Your task to perform on an android device: toggle javascript in the chrome app Image 0: 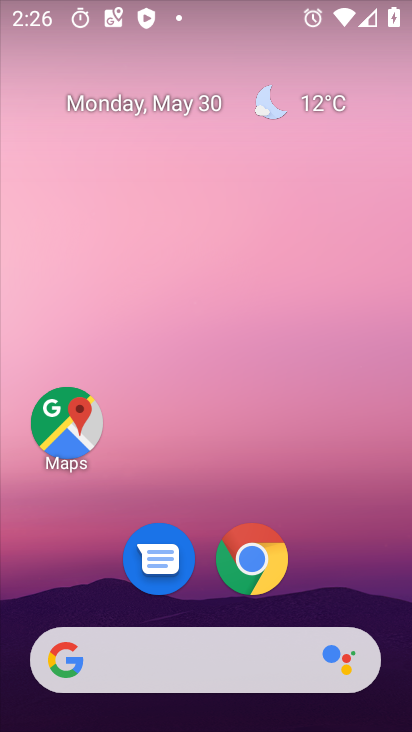
Step 0: click (264, 549)
Your task to perform on an android device: toggle javascript in the chrome app Image 1: 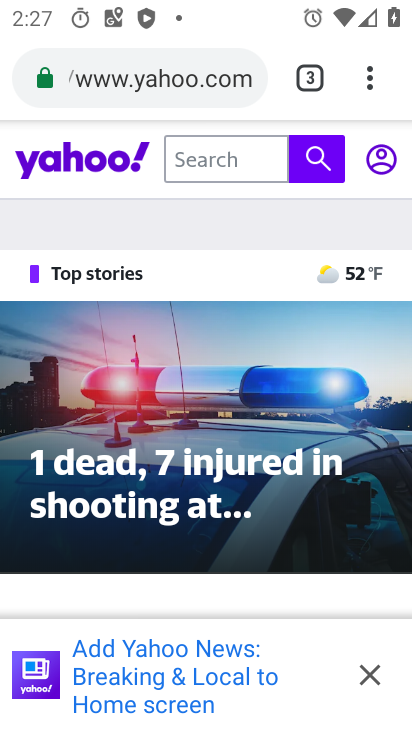
Step 1: drag from (369, 77) to (95, 617)
Your task to perform on an android device: toggle javascript in the chrome app Image 2: 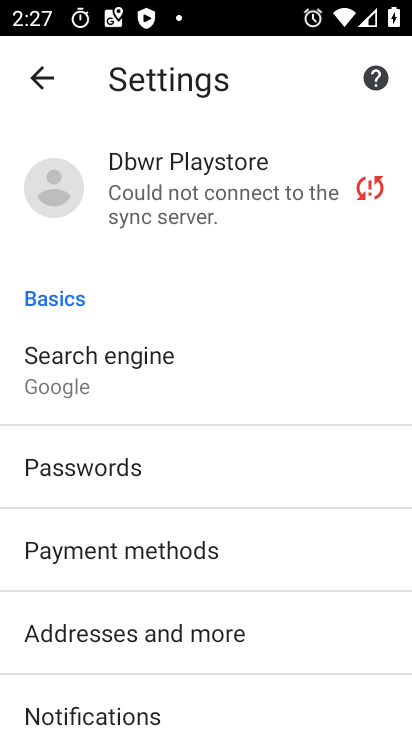
Step 2: drag from (129, 703) to (252, 165)
Your task to perform on an android device: toggle javascript in the chrome app Image 3: 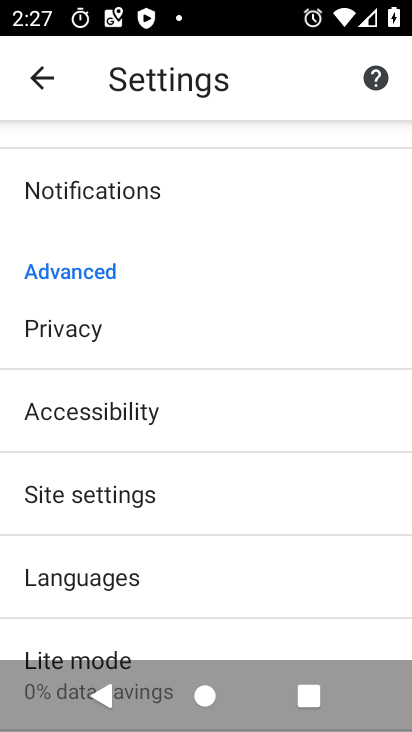
Step 3: click (79, 515)
Your task to perform on an android device: toggle javascript in the chrome app Image 4: 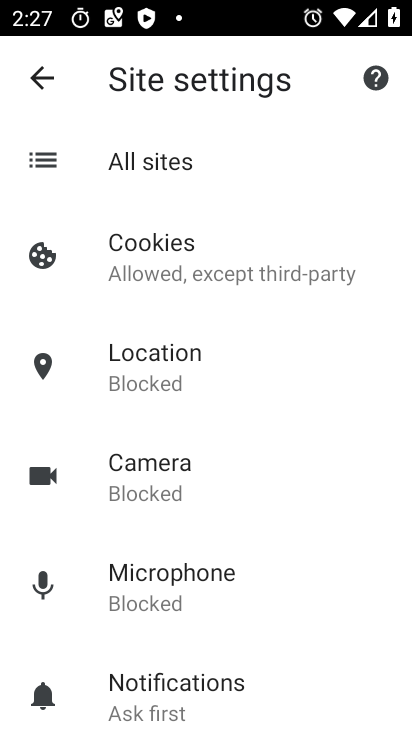
Step 4: drag from (155, 657) to (282, 206)
Your task to perform on an android device: toggle javascript in the chrome app Image 5: 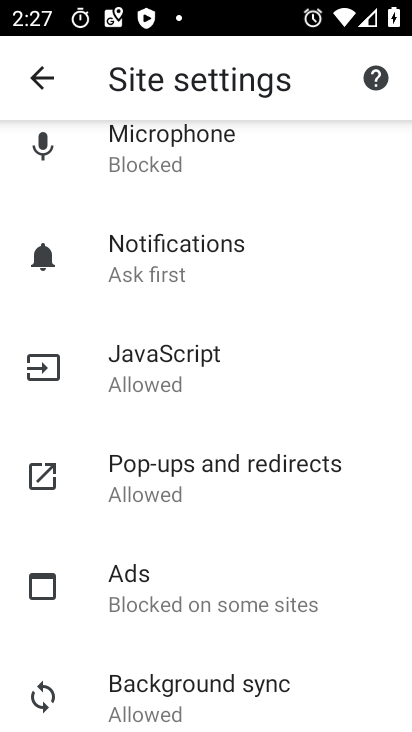
Step 5: click (162, 376)
Your task to perform on an android device: toggle javascript in the chrome app Image 6: 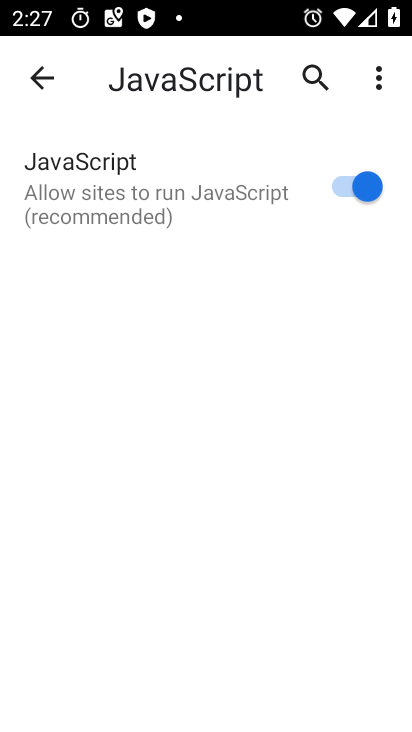
Step 6: click (348, 183)
Your task to perform on an android device: toggle javascript in the chrome app Image 7: 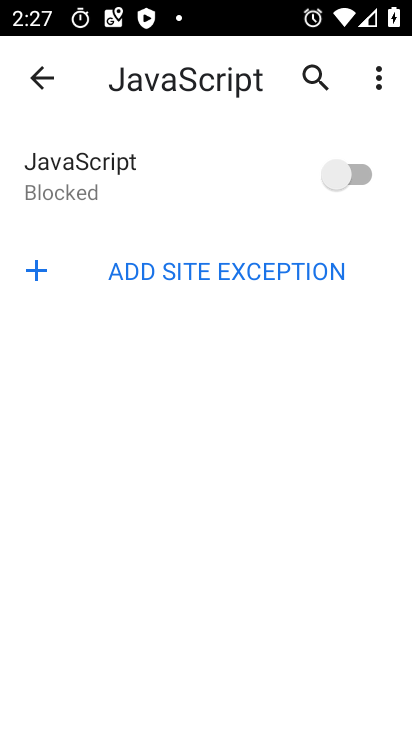
Step 7: task complete